Your task to perform on an android device: turn off wifi Image 0: 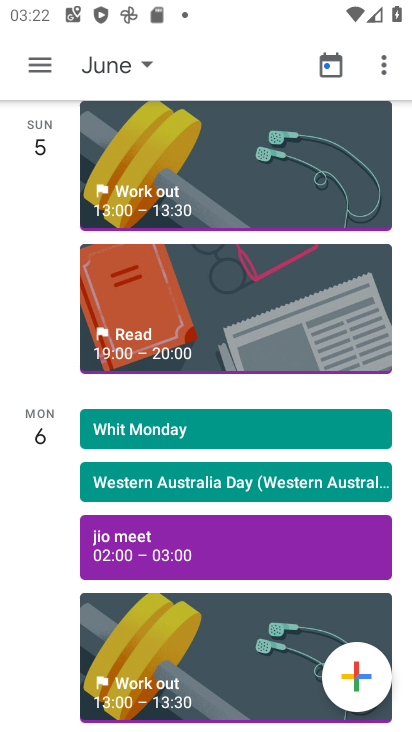
Step 0: drag from (268, 3) to (233, 576)
Your task to perform on an android device: turn off wifi Image 1: 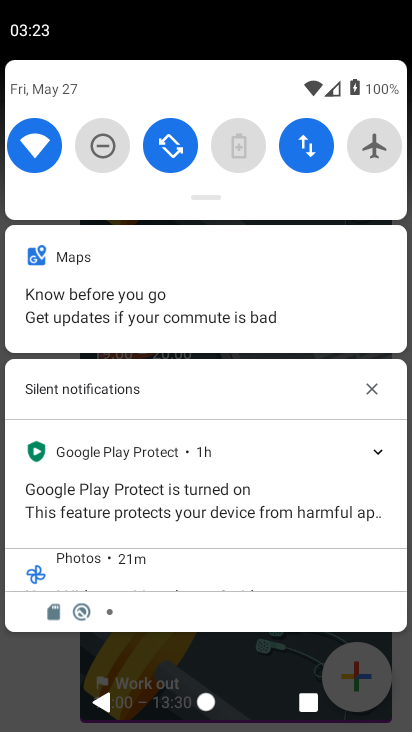
Step 1: click (44, 151)
Your task to perform on an android device: turn off wifi Image 2: 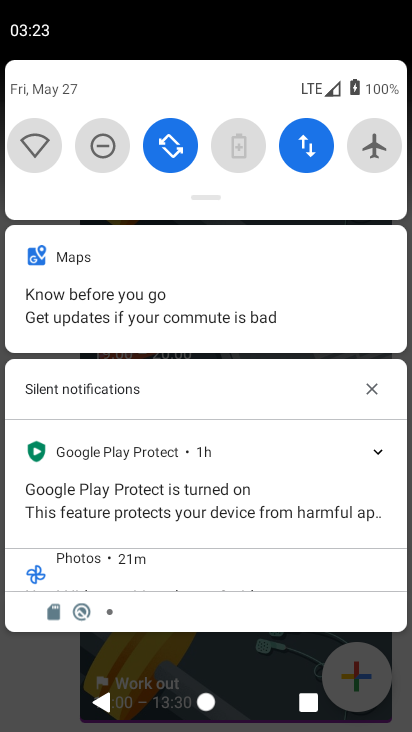
Step 2: task complete